Your task to perform on an android device: Search for the best pizza restaurants on Maps Image 0: 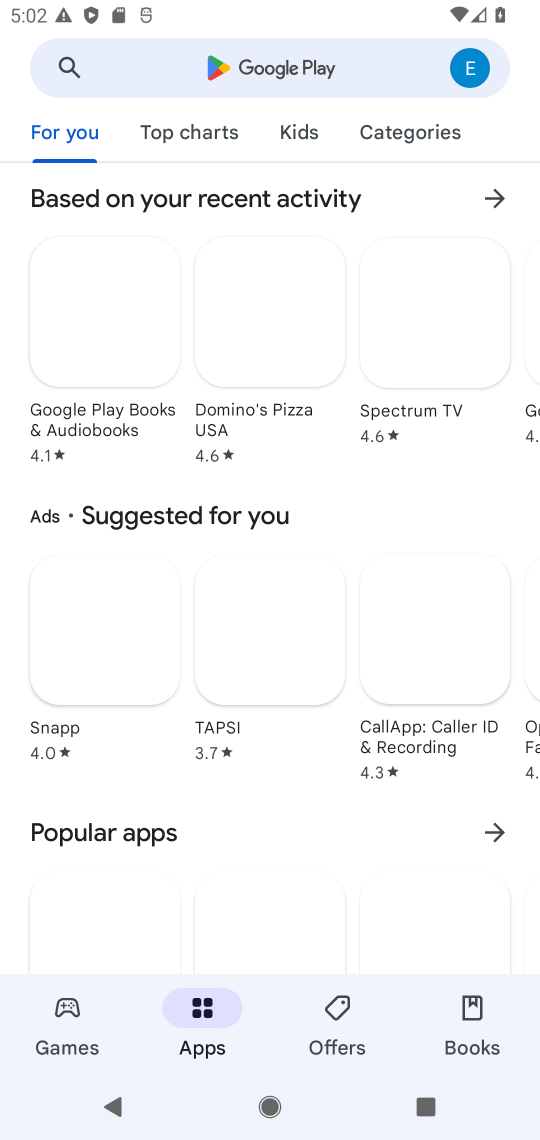
Step 0: press home button
Your task to perform on an android device: Search for the best pizza restaurants on Maps Image 1: 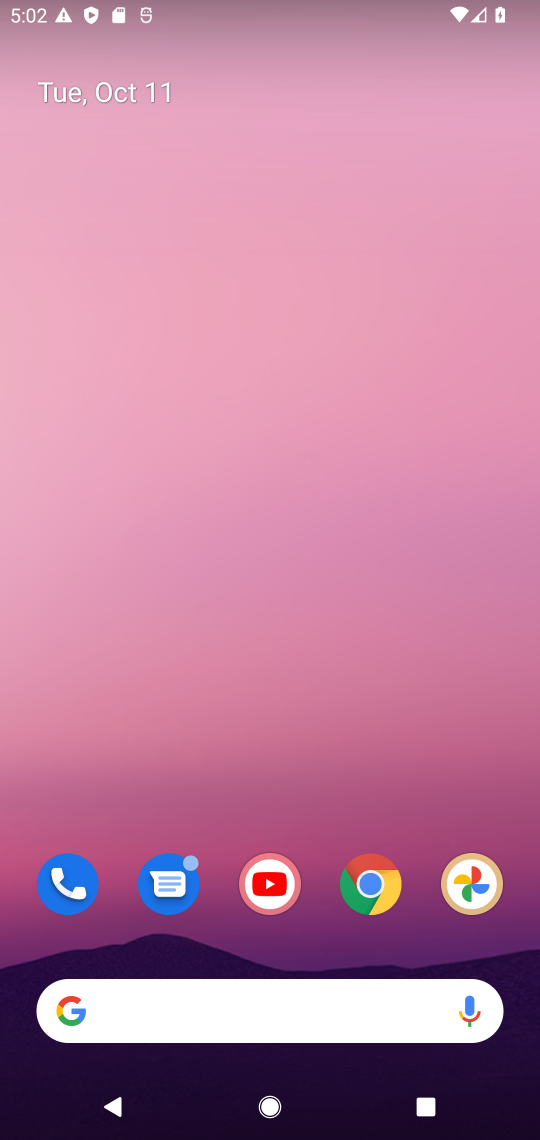
Step 1: drag from (344, 958) to (276, 150)
Your task to perform on an android device: Search for the best pizza restaurants on Maps Image 2: 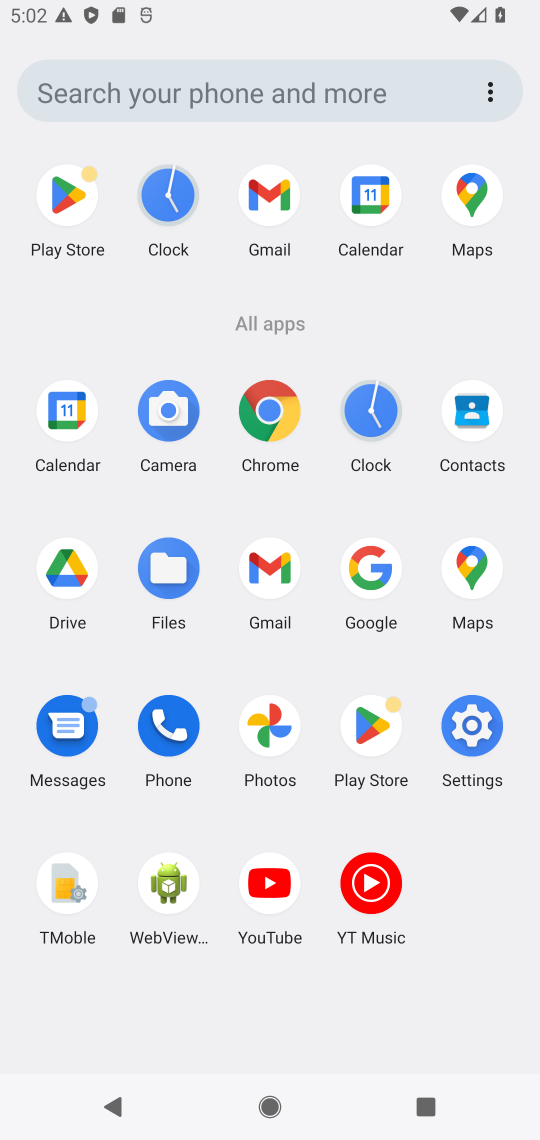
Step 2: click (265, 401)
Your task to perform on an android device: Search for the best pizza restaurants on Maps Image 3: 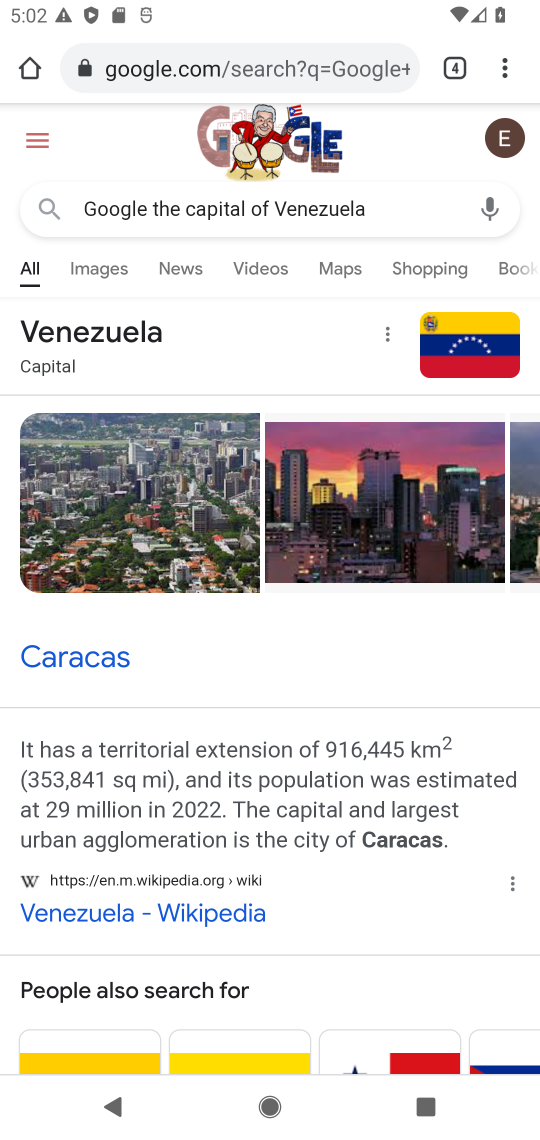
Step 3: click (400, 205)
Your task to perform on an android device: Search for the best pizza restaurants on Maps Image 4: 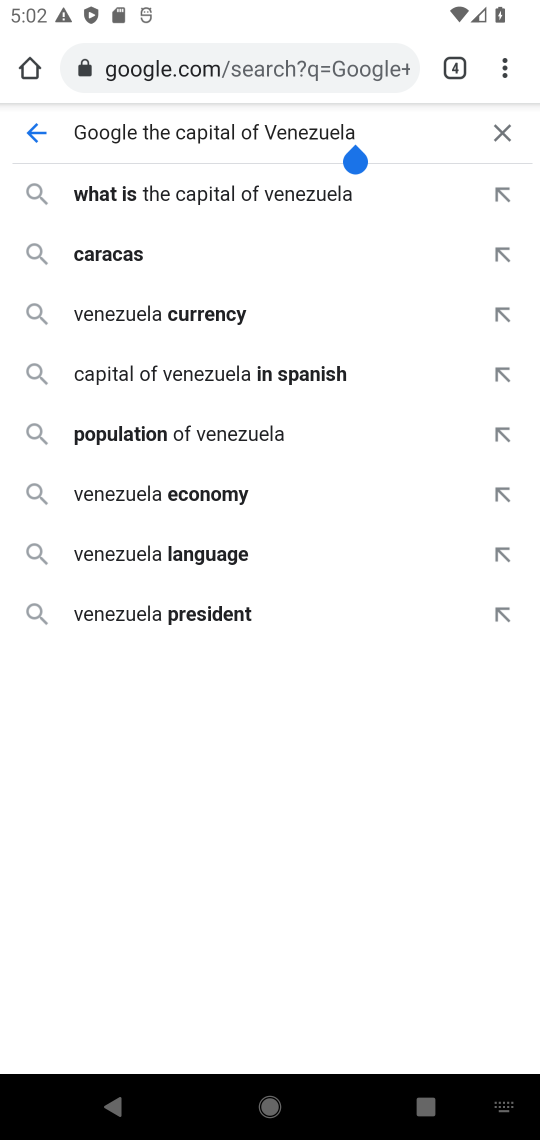
Step 4: click (505, 124)
Your task to perform on an android device: Search for the best pizza restaurants on Maps Image 5: 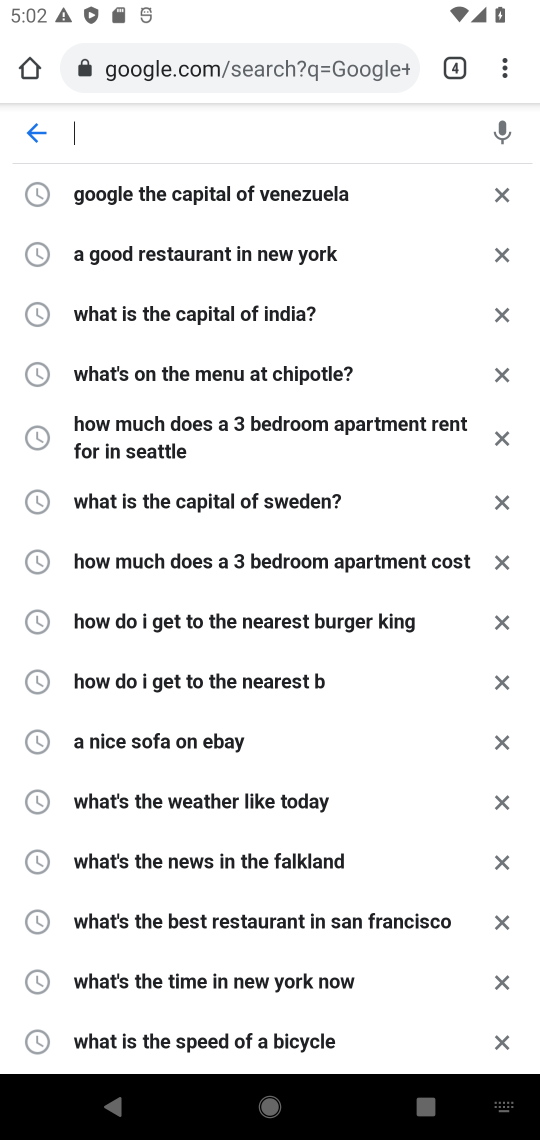
Step 5: type "best pizza restaurants on Maps"
Your task to perform on an android device: Search for the best pizza restaurants on Maps Image 6: 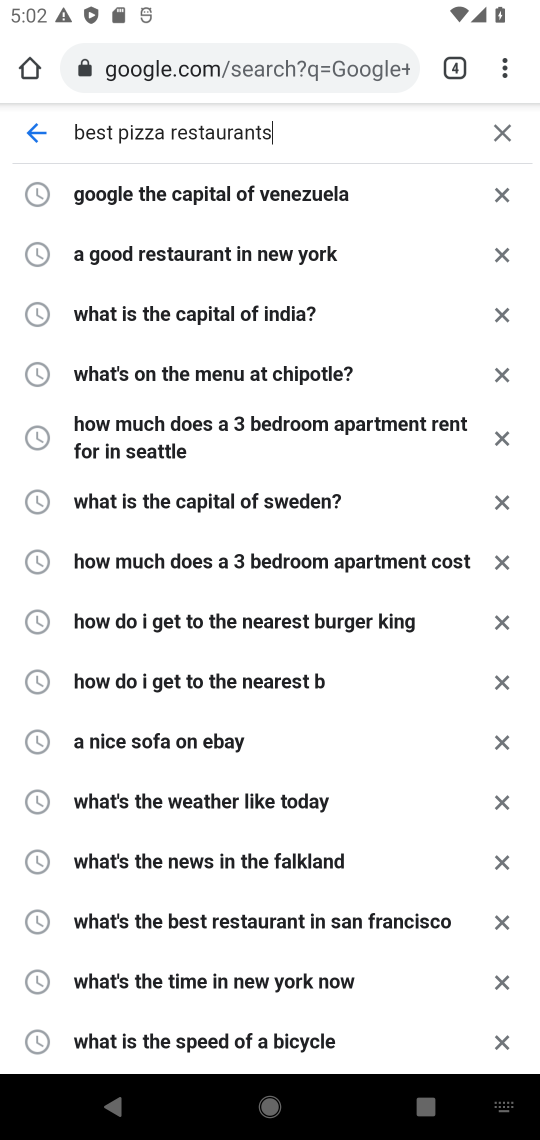
Step 6: type ""
Your task to perform on an android device: Search for the best pizza restaurants on Maps Image 7: 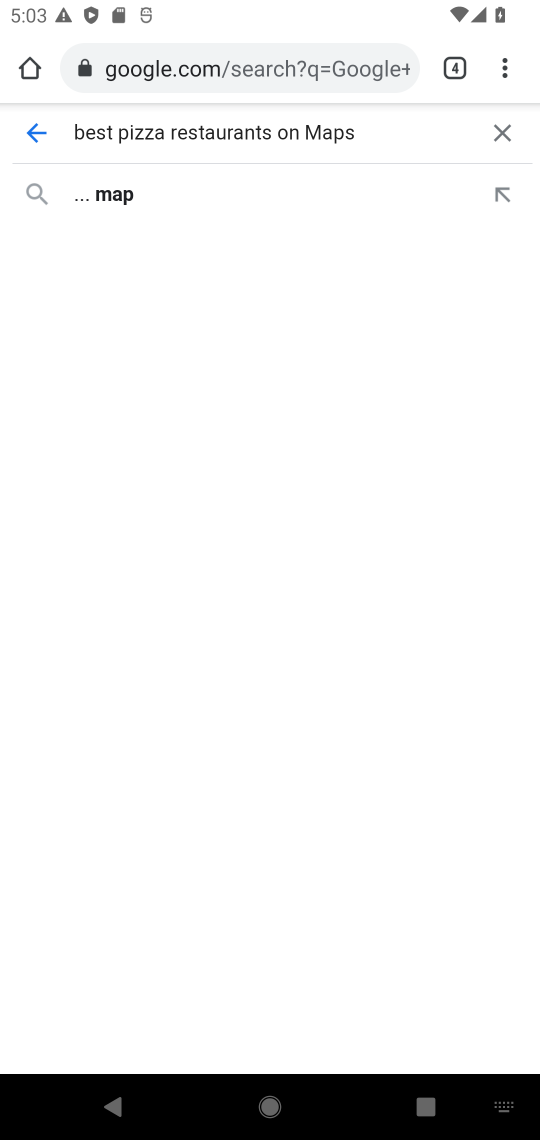
Step 7: click (125, 191)
Your task to perform on an android device: Search for the best pizza restaurants on Maps Image 8: 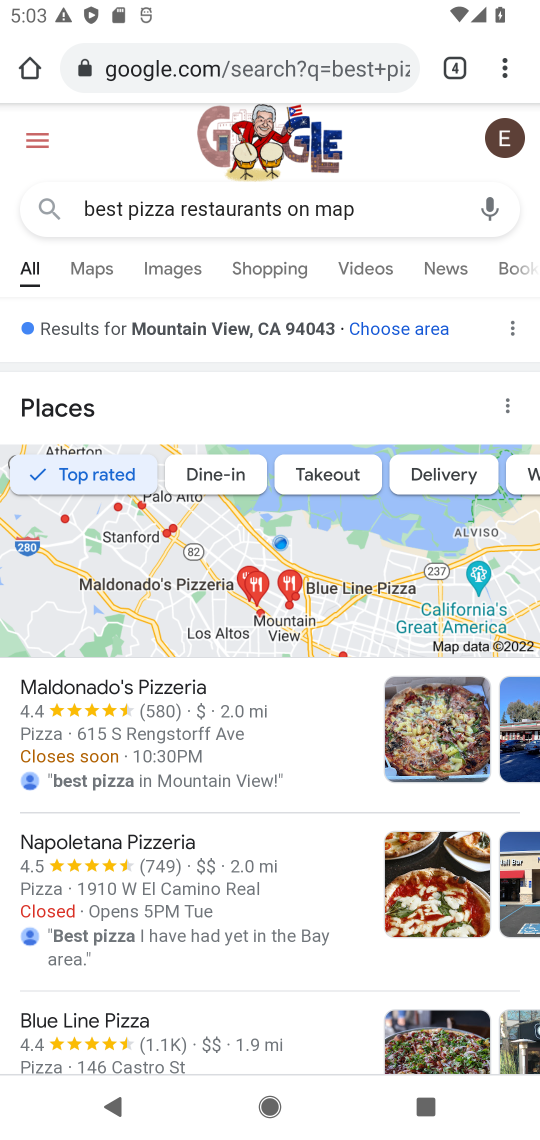
Step 8: click (298, 545)
Your task to perform on an android device: Search for the best pizza restaurants on Maps Image 9: 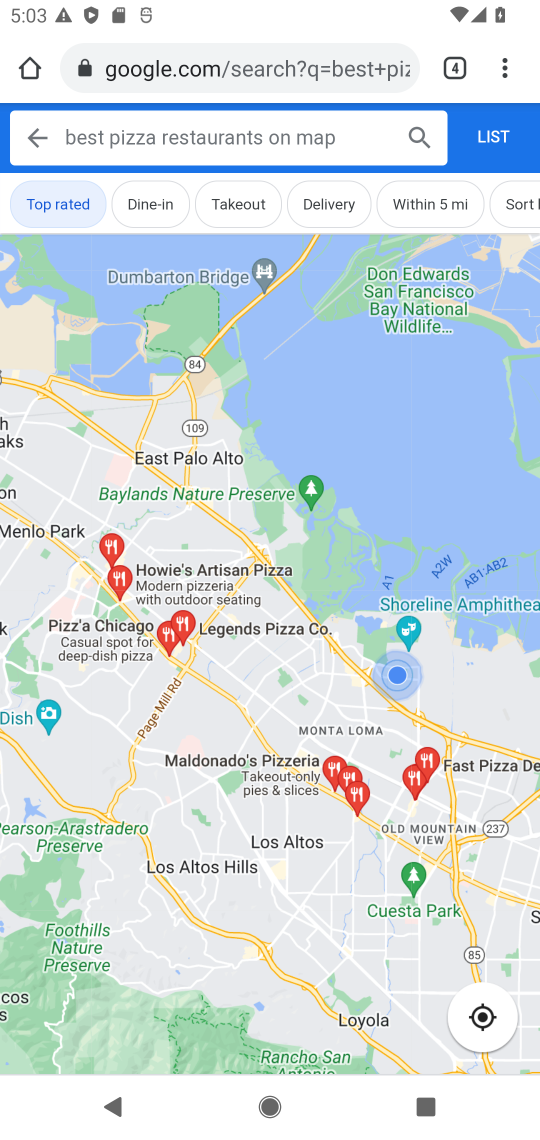
Step 9: task complete